Your task to perform on an android device: set the timer Image 0: 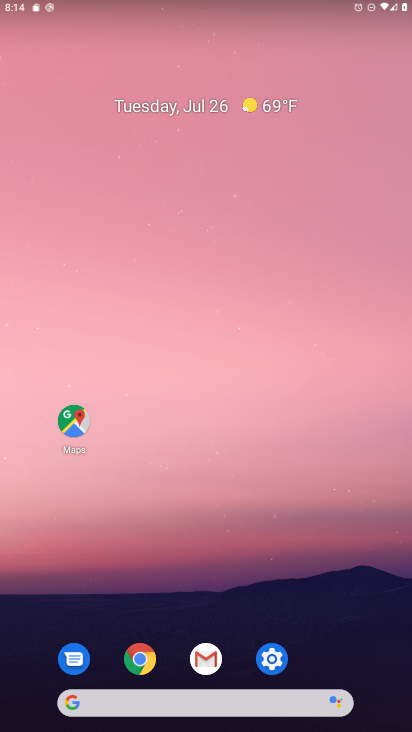
Step 0: drag from (271, 712) to (272, 194)
Your task to perform on an android device: set the timer Image 1: 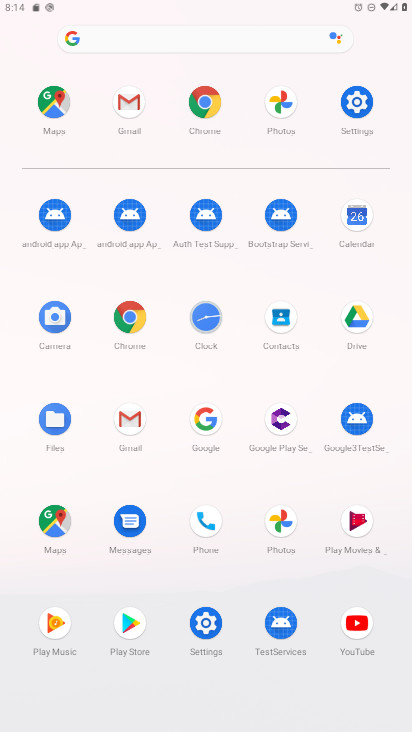
Step 1: click (197, 320)
Your task to perform on an android device: set the timer Image 2: 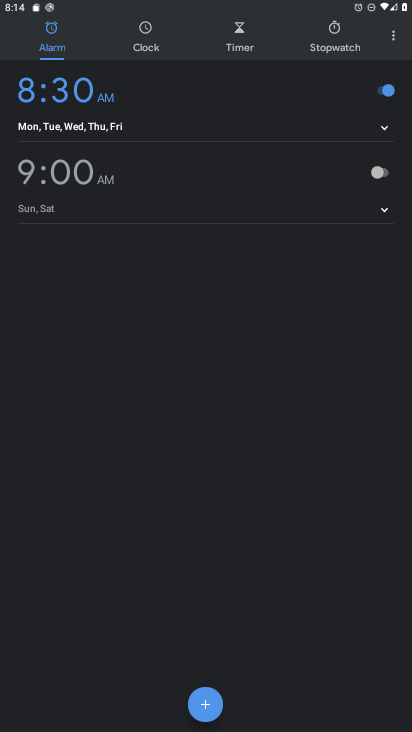
Step 2: click (391, 42)
Your task to perform on an android device: set the timer Image 3: 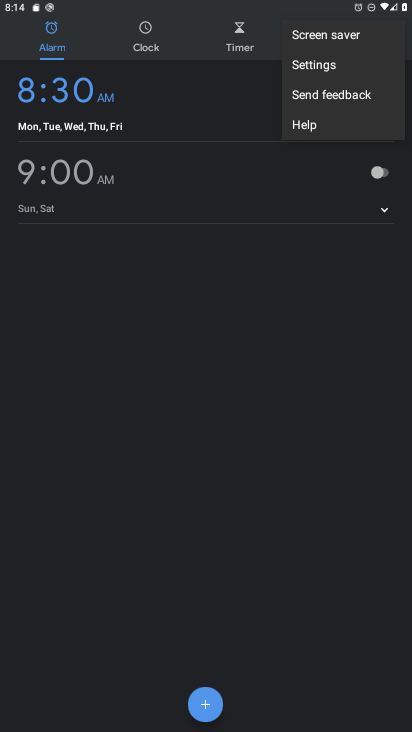
Step 3: click (332, 73)
Your task to perform on an android device: set the timer Image 4: 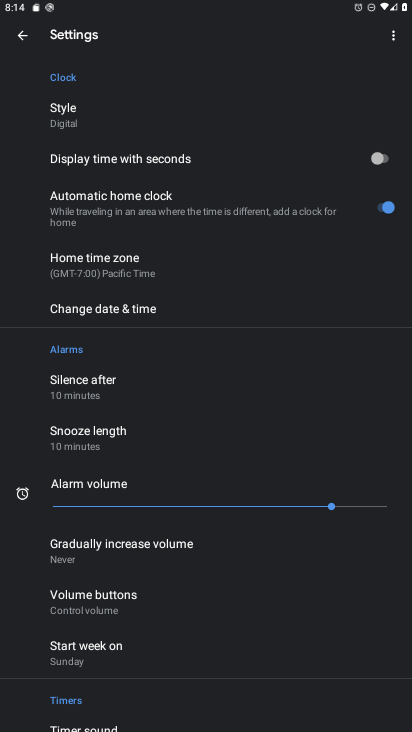
Step 4: drag from (112, 614) to (148, 446)
Your task to perform on an android device: set the timer Image 5: 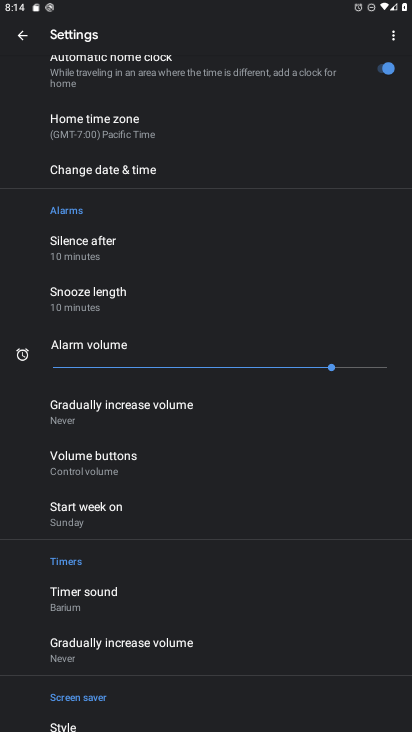
Step 5: click (91, 599)
Your task to perform on an android device: set the timer Image 6: 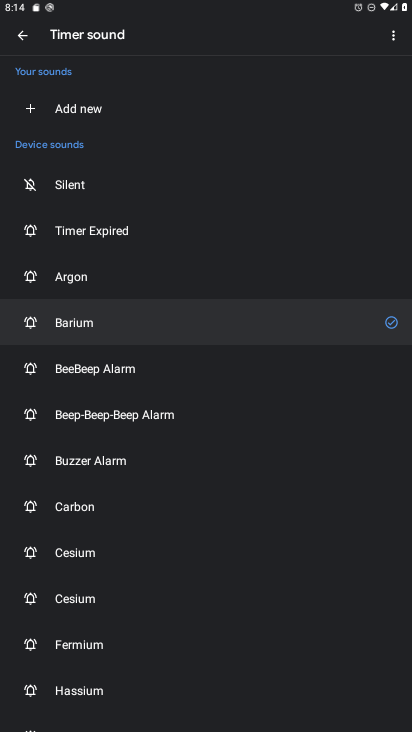
Step 6: click (101, 284)
Your task to perform on an android device: set the timer Image 7: 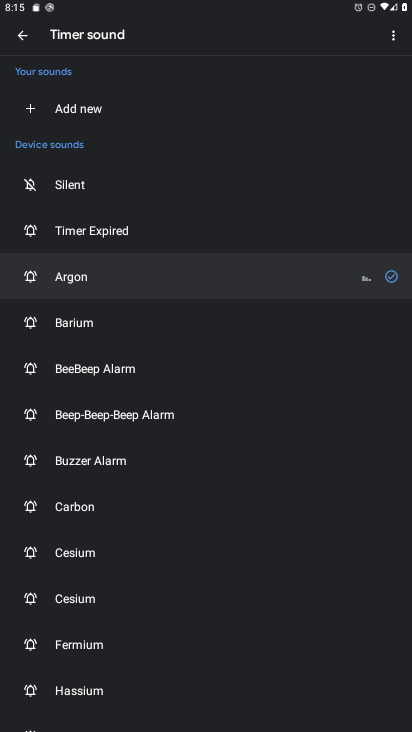
Step 7: task complete